Your task to perform on an android device: open a bookmark in the chrome app Image 0: 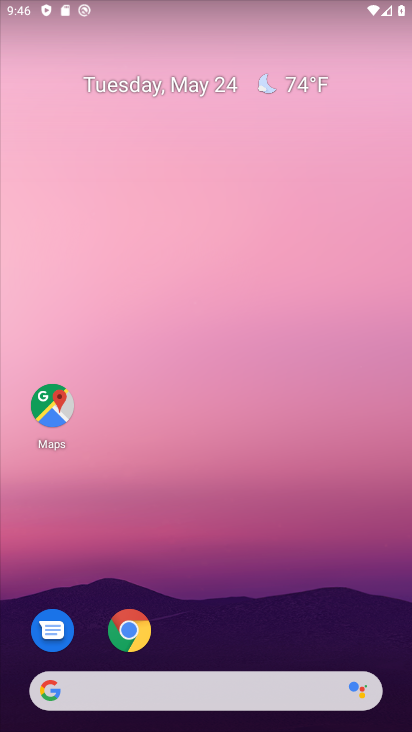
Step 0: click (116, 623)
Your task to perform on an android device: open a bookmark in the chrome app Image 1: 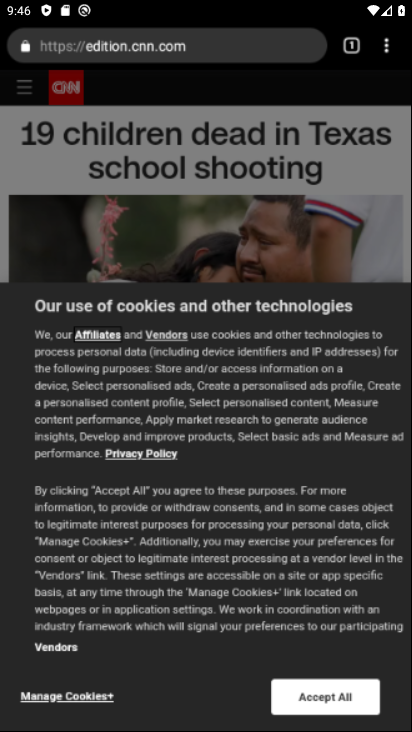
Step 1: click (392, 44)
Your task to perform on an android device: open a bookmark in the chrome app Image 2: 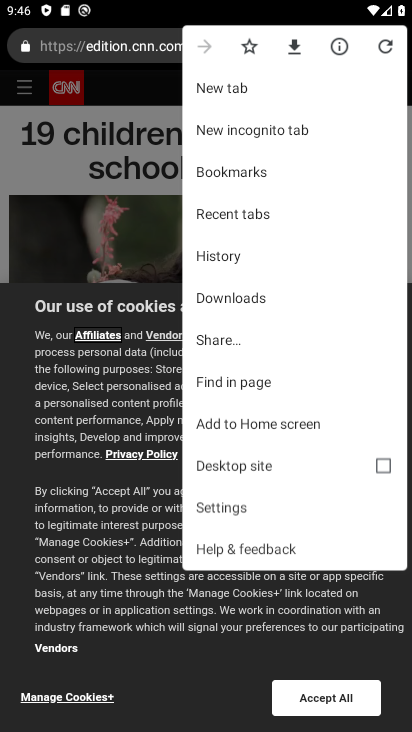
Step 2: click (386, 49)
Your task to perform on an android device: open a bookmark in the chrome app Image 3: 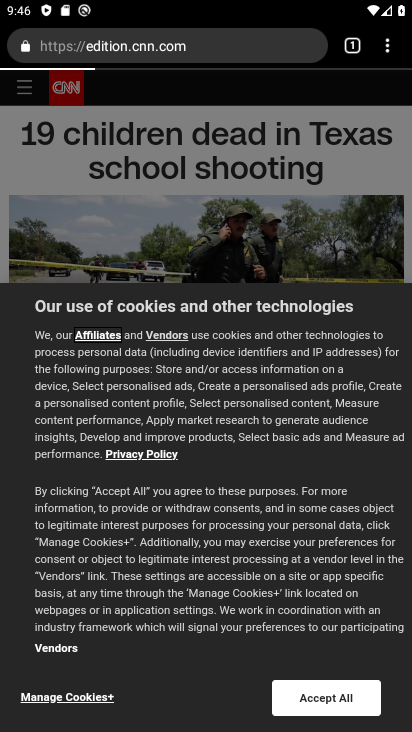
Step 3: click (386, 49)
Your task to perform on an android device: open a bookmark in the chrome app Image 4: 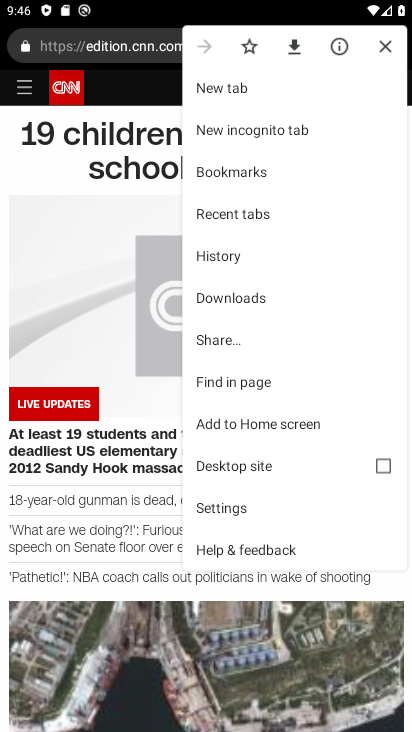
Step 4: click (227, 164)
Your task to perform on an android device: open a bookmark in the chrome app Image 5: 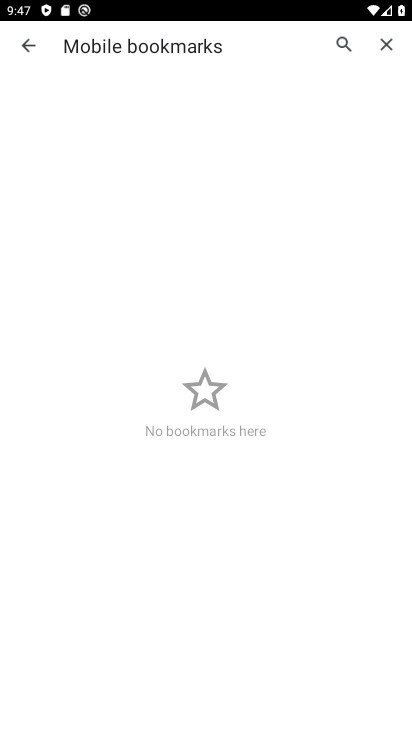
Step 5: task complete